Your task to perform on an android device: Go to battery settings Image 0: 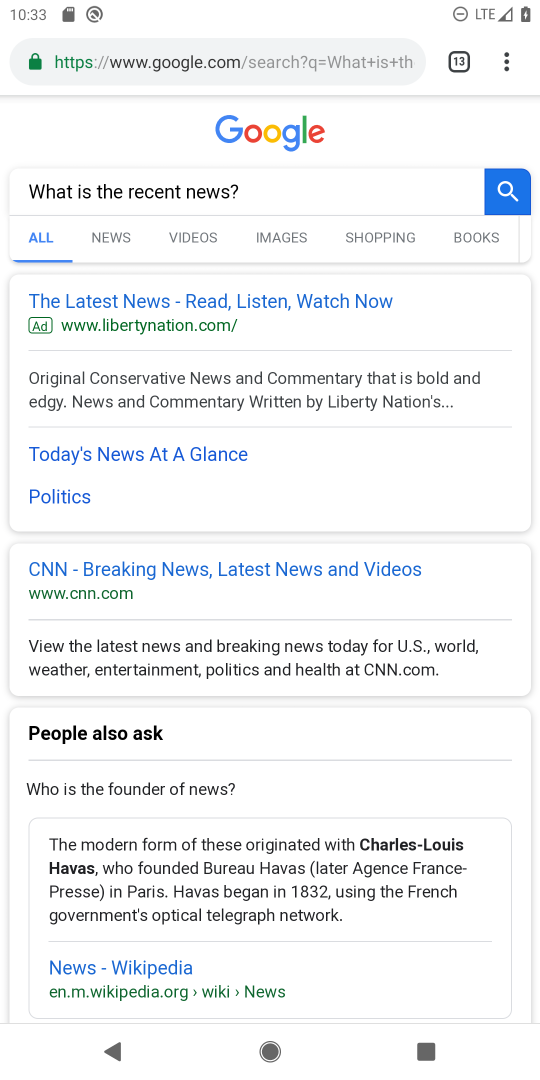
Step 0: press home button
Your task to perform on an android device: Go to battery settings Image 1: 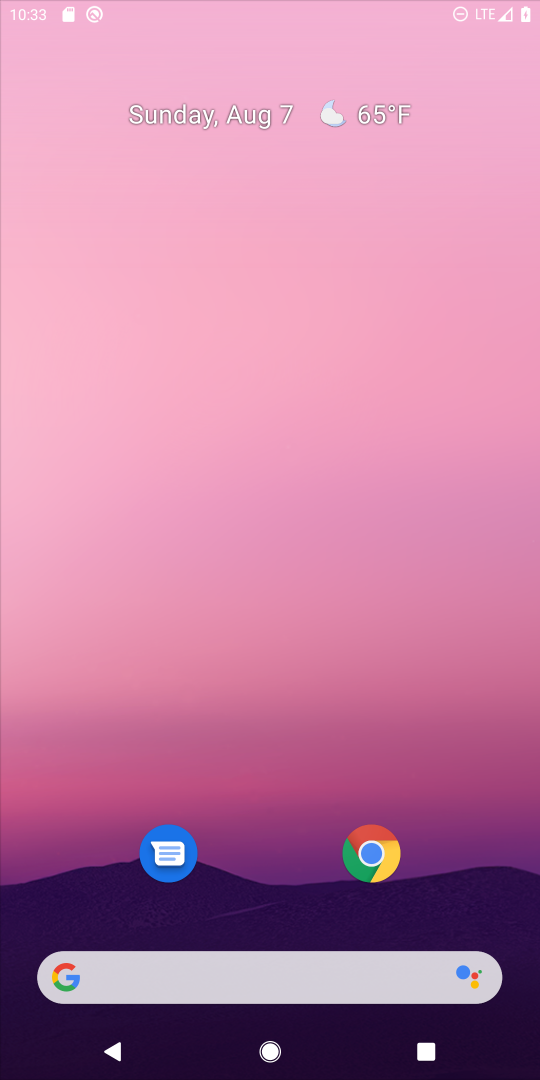
Step 1: drag from (271, 953) to (357, 375)
Your task to perform on an android device: Go to battery settings Image 2: 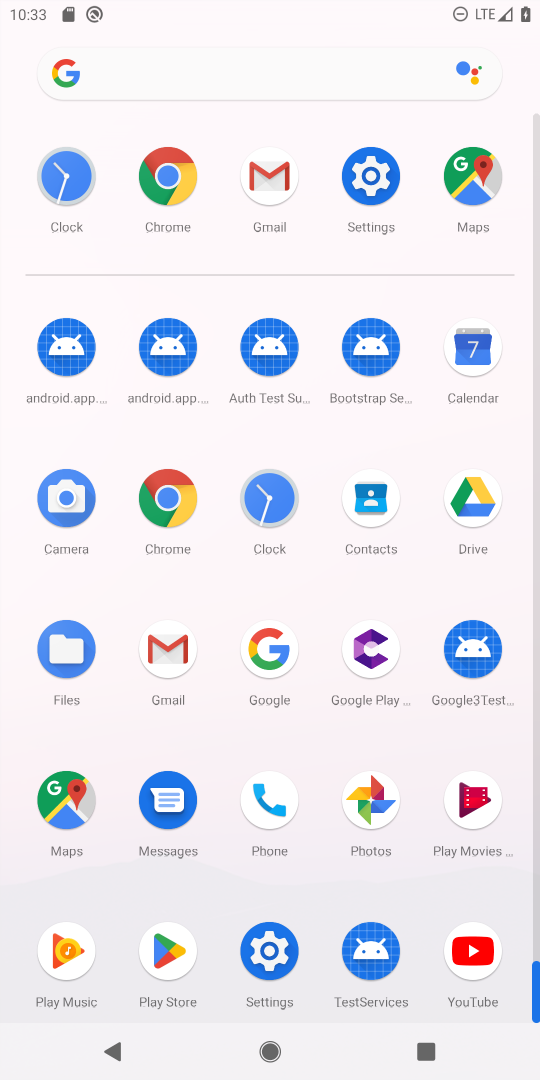
Step 2: click (368, 171)
Your task to perform on an android device: Go to battery settings Image 3: 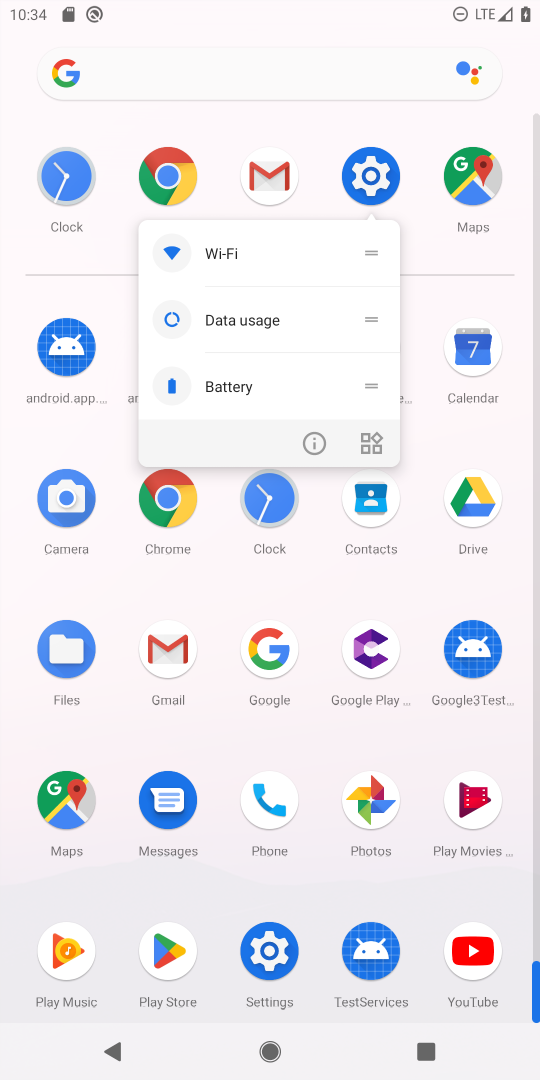
Step 3: click (368, 171)
Your task to perform on an android device: Go to battery settings Image 4: 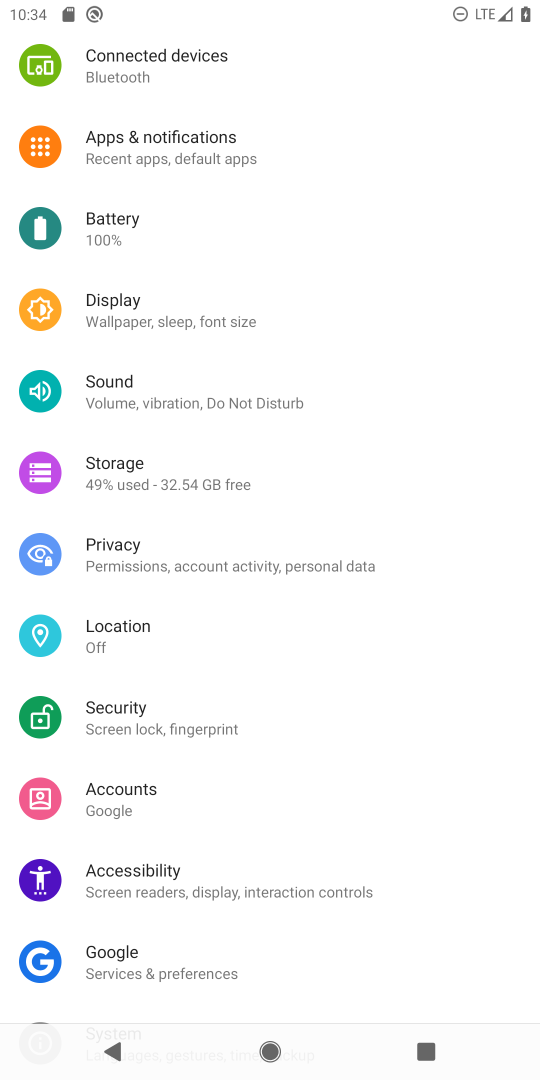
Step 4: click (100, 223)
Your task to perform on an android device: Go to battery settings Image 5: 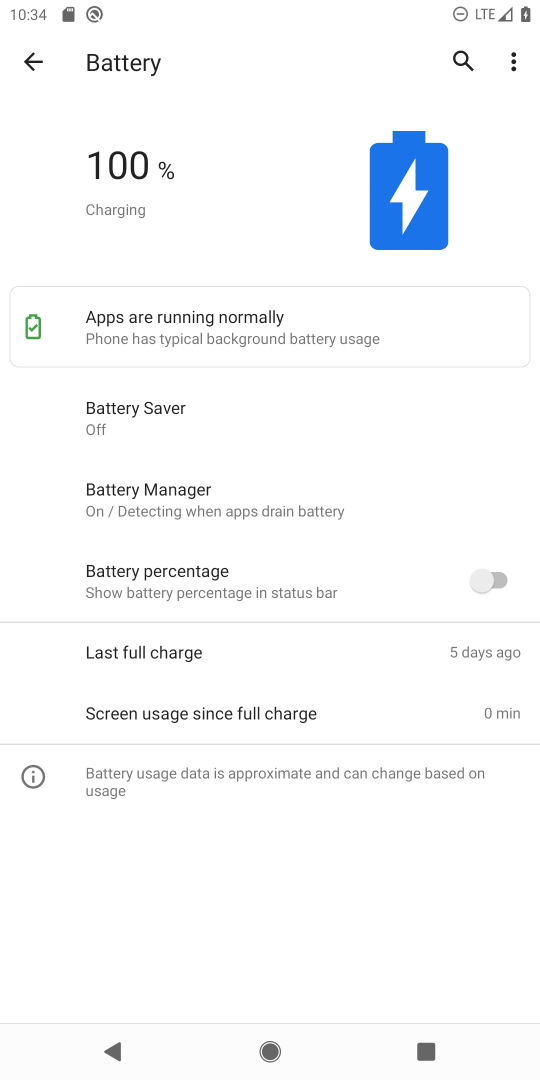
Step 5: task complete